Your task to perform on an android device: Open calendar and show me the first week of next month Image 0: 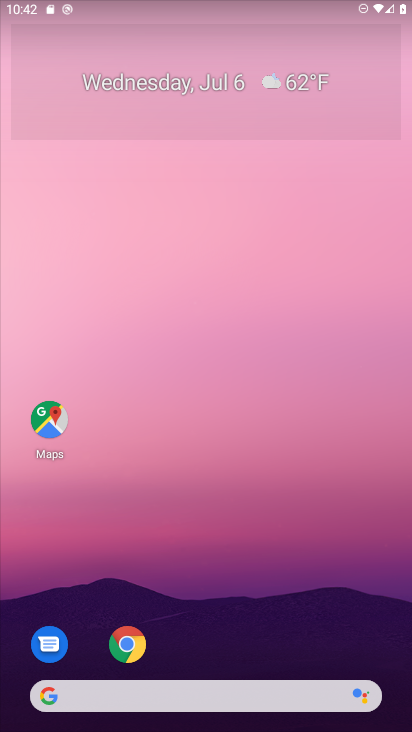
Step 0: press home button
Your task to perform on an android device: Open calendar and show me the first week of next month Image 1: 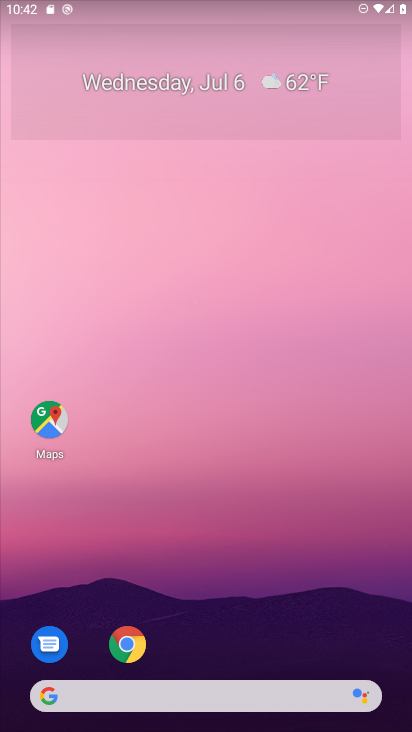
Step 1: drag from (317, 585) to (291, 143)
Your task to perform on an android device: Open calendar and show me the first week of next month Image 2: 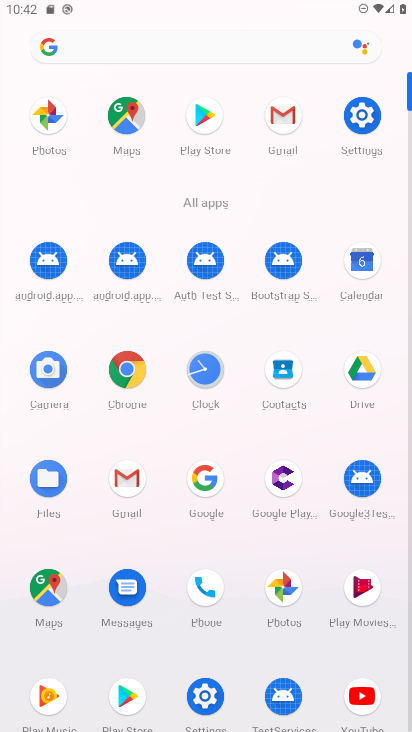
Step 2: click (375, 271)
Your task to perform on an android device: Open calendar and show me the first week of next month Image 3: 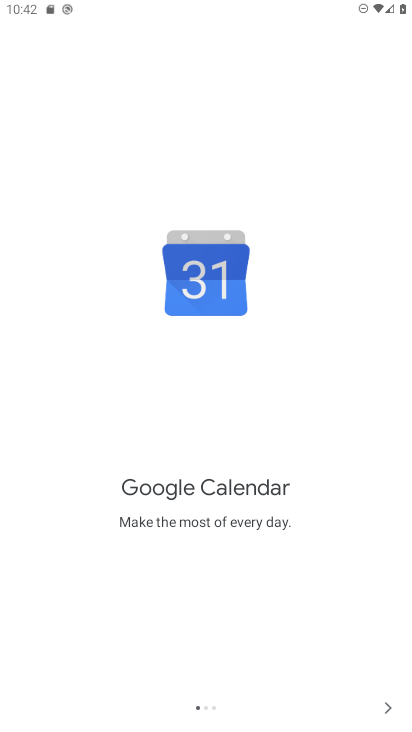
Step 3: click (392, 710)
Your task to perform on an android device: Open calendar and show me the first week of next month Image 4: 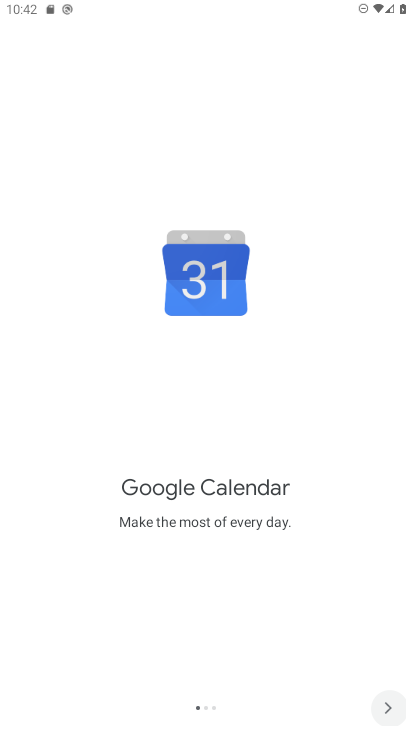
Step 4: click (392, 710)
Your task to perform on an android device: Open calendar and show me the first week of next month Image 5: 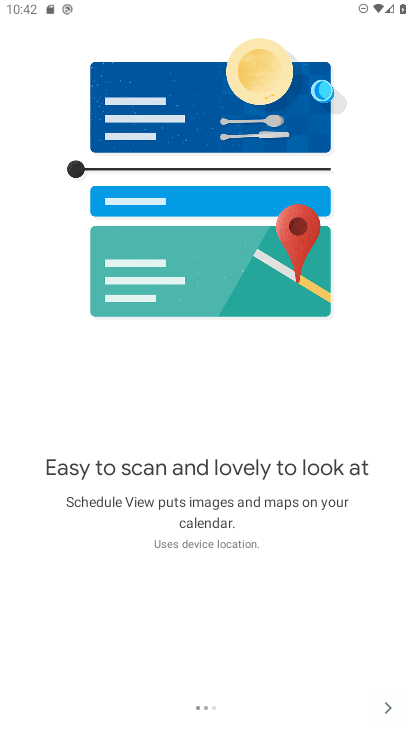
Step 5: click (392, 710)
Your task to perform on an android device: Open calendar and show me the first week of next month Image 6: 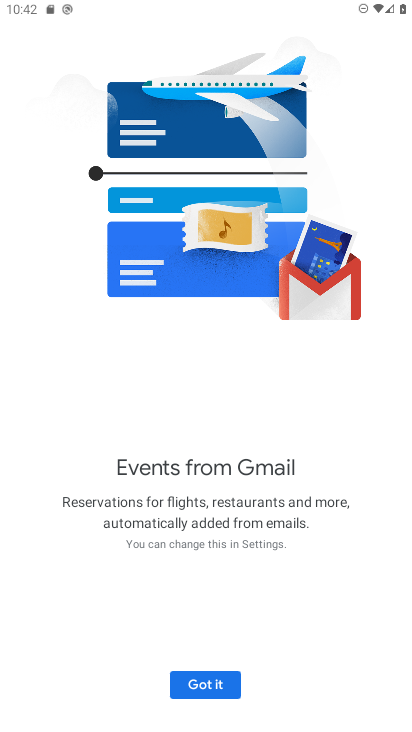
Step 6: click (209, 674)
Your task to perform on an android device: Open calendar and show me the first week of next month Image 7: 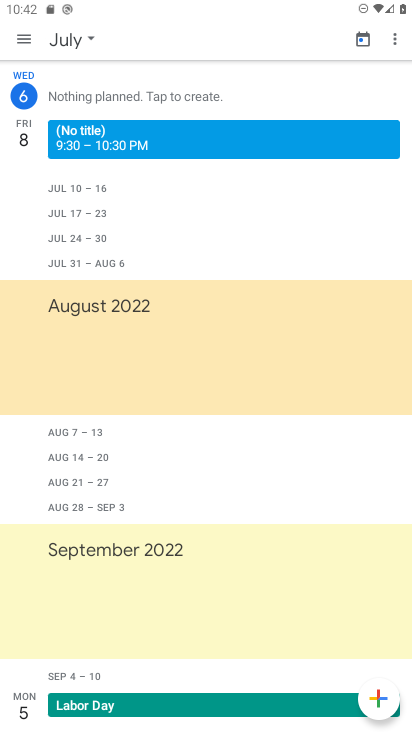
Step 7: click (27, 34)
Your task to perform on an android device: Open calendar and show me the first week of next month Image 8: 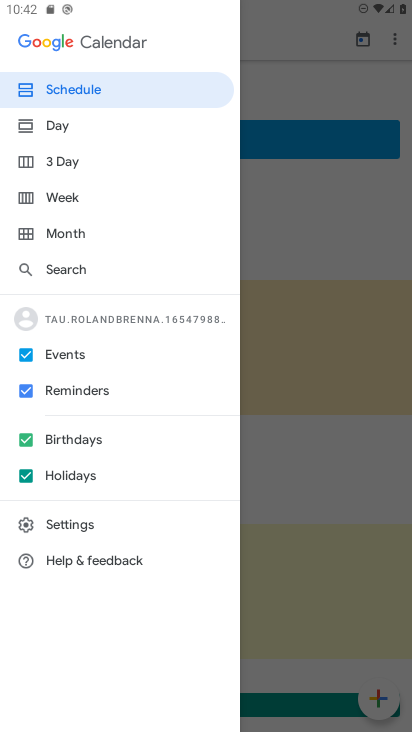
Step 8: click (69, 230)
Your task to perform on an android device: Open calendar and show me the first week of next month Image 9: 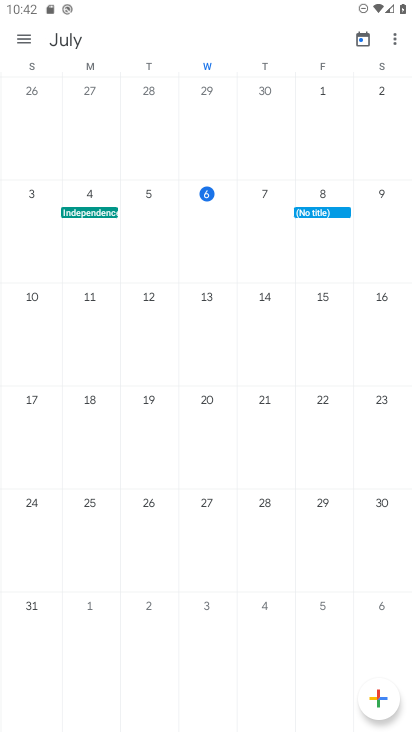
Step 9: task complete